Your task to perform on an android device: change notification settings in the gmail app Image 0: 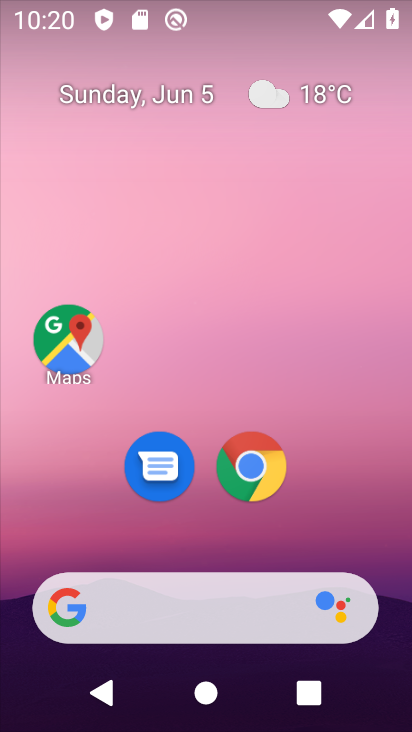
Step 0: drag from (351, 543) to (285, 164)
Your task to perform on an android device: change notification settings in the gmail app Image 1: 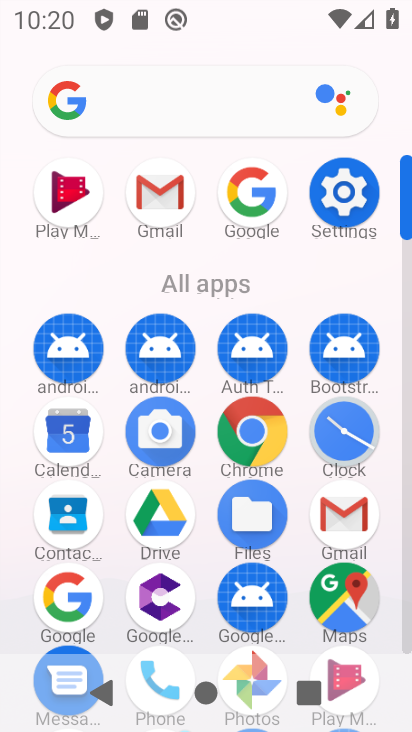
Step 1: drag from (308, 305) to (280, 111)
Your task to perform on an android device: change notification settings in the gmail app Image 2: 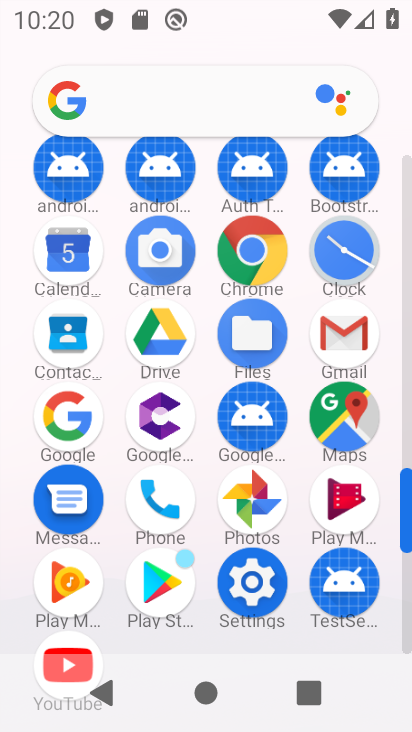
Step 2: click (344, 331)
Your task to perform on an android device: change notification settings in the gmail app Image 3: 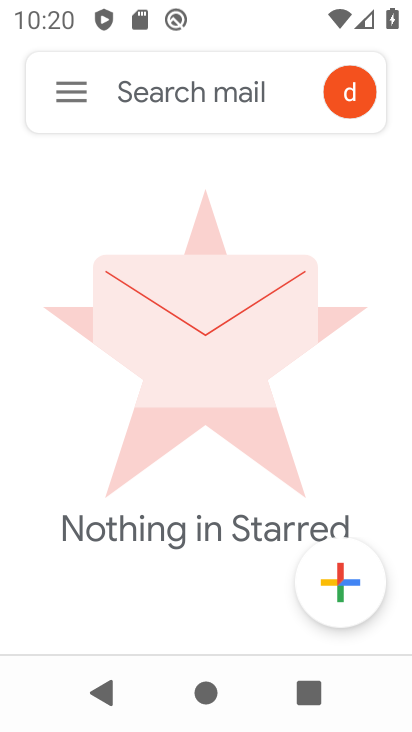
Step 3: click (63, 96)
Your task to perform on an android device: change notification settings in the gmail app Image 4: 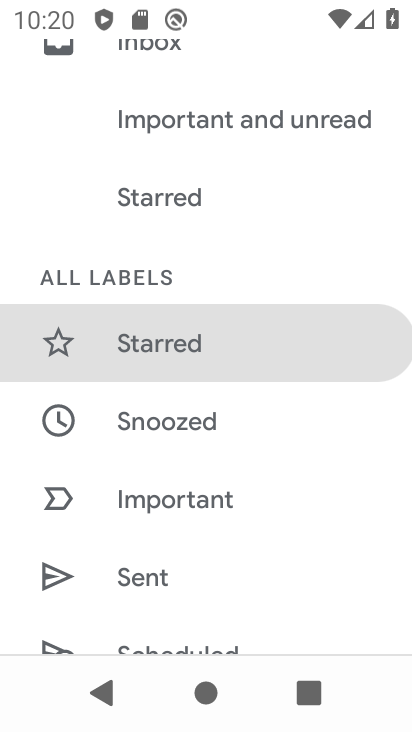
Step 4: drag from (197, 457) to (196, 332)
Your task to perform on an android device: change notification settings in the gmail app Image 5: 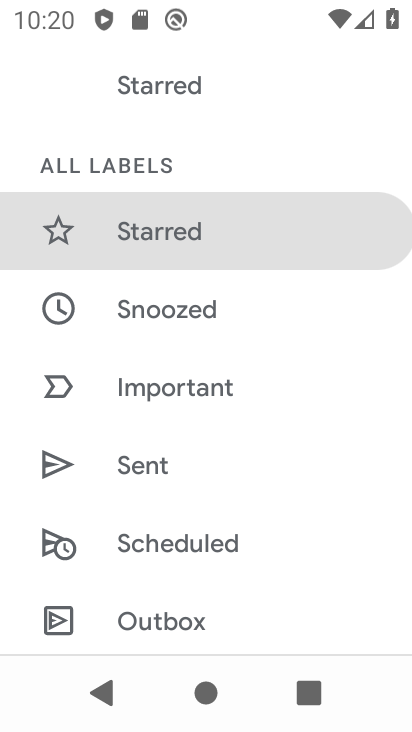
Step 5: drag from (203, 421) to (243, 331)
Your task to perform on an android device: change notification settings in the gmail app Image 6: 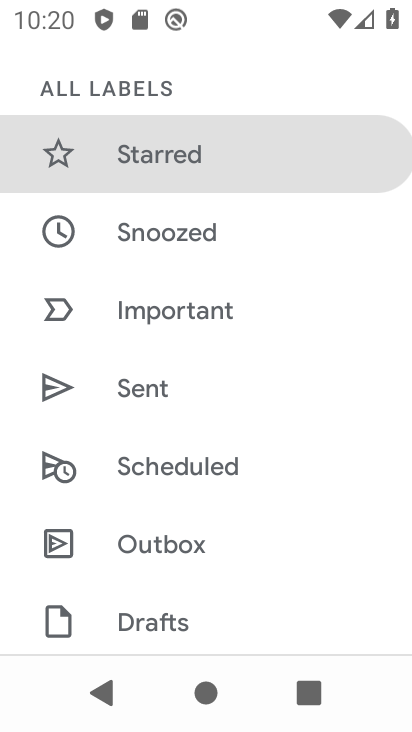
Step 6: drag from (177, 428) to (192, 335)
Your task to perform on an android device: change notification settings in the gmail app Image 7: 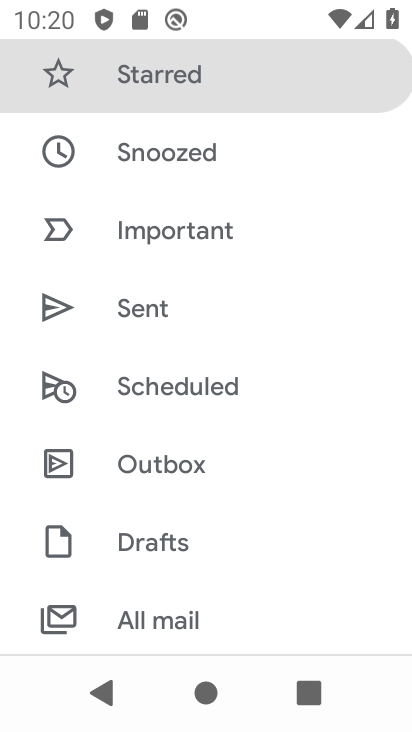
Step 7: drag from (173, 436) to (175, 329)
Your task to perform on an android device: change notification settings in the gmail app Image 8: 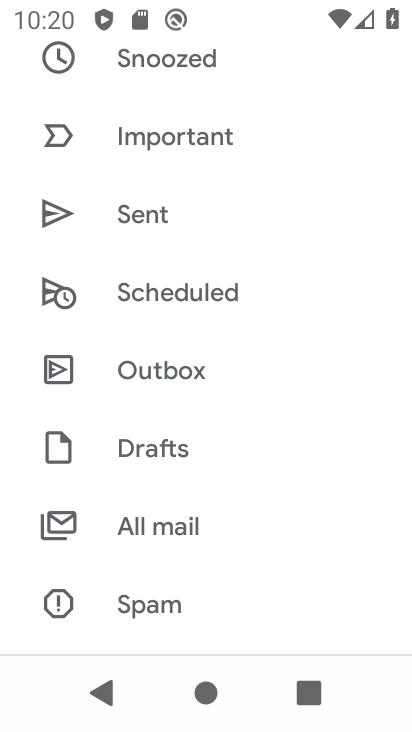
Step 8: drag from (153, 413) to (187, 312)
Your task to perform on an android device: change notification settings in the gmail app Image 9: 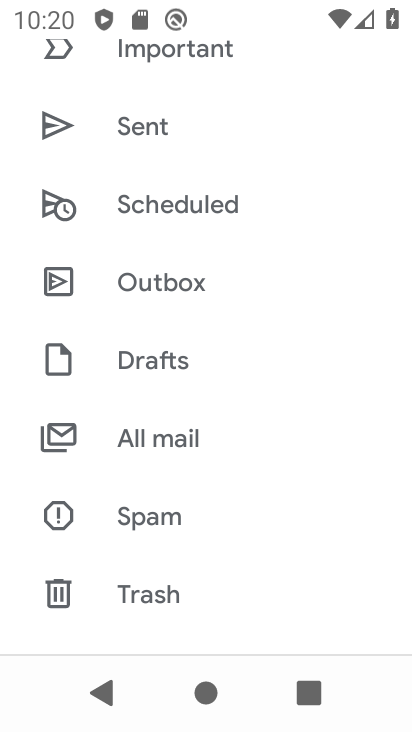
Step 9: drag from (157, 398) to (173, 297)
Your task to perform on an android device: change notification settings in the gmail app Image 10: 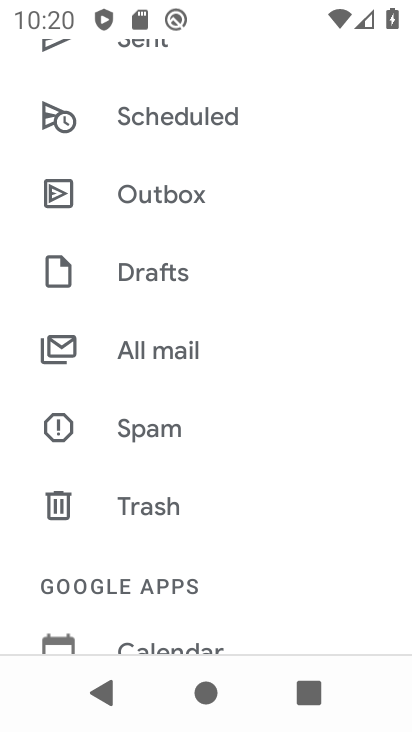
Step 10: drag from (163, 399) to (197, 299)
Your task to perform on an android device: change notification settings in the gmail app Image 11: 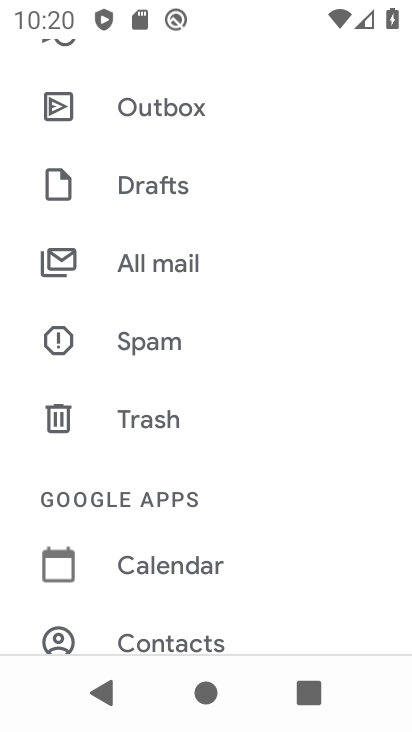
Step 11: drag from (155, 384) to (190, 297)
Your task to perform on an android device: change notification settings in the gmail app Image 12: 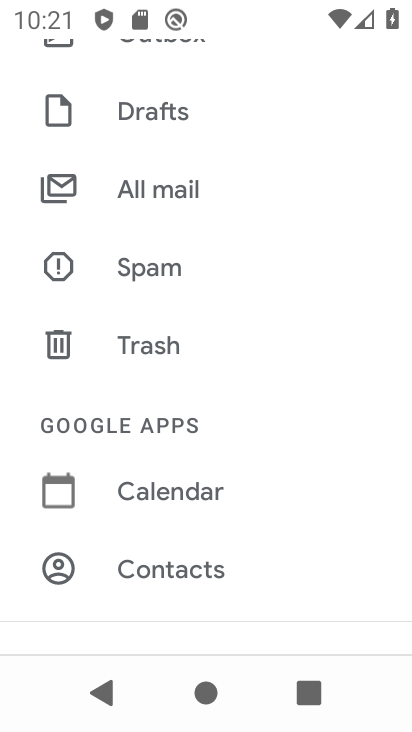
Step 12: drag from (161, 398) to (158, 286)
Your task to perform on an android device: change notification settings in the gmail app Image 13: 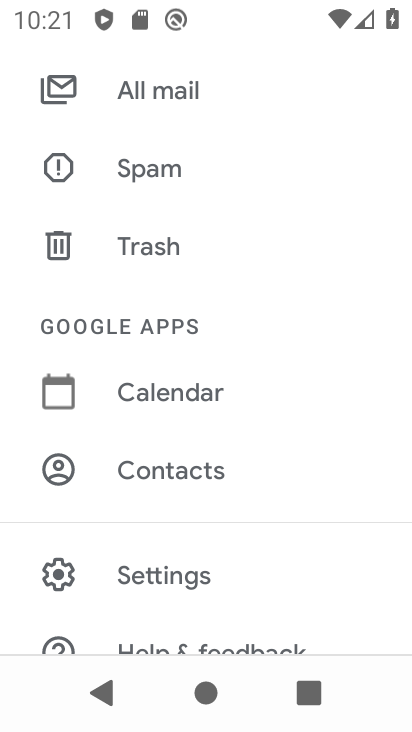
Step 13: click (180, 573)
Your task to perform on an android device: change notification settings in the gmail app Image 14: 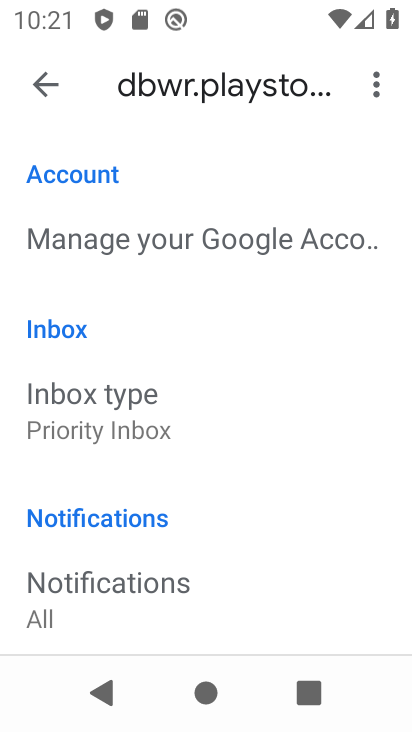
Step 14: drag from (87, 456) to (176, 334)
Your task to perform on an android device: change notification settings in the gmail app Image 15: 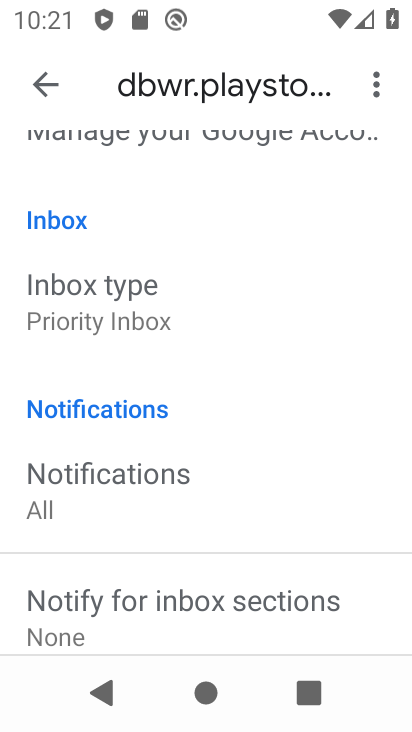
Step 15: drag from (133, 527) to (212, 387)
Your task to perform on an android device: change notification settings in the gmail app Image 16: 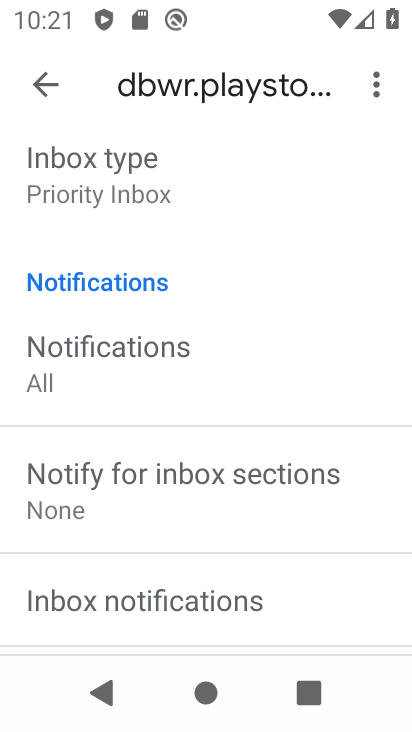
Step 16: drag from (170, 528) to (249, 382)
Your task to perform on an android device: change notification settings in the gmail app Image 17: 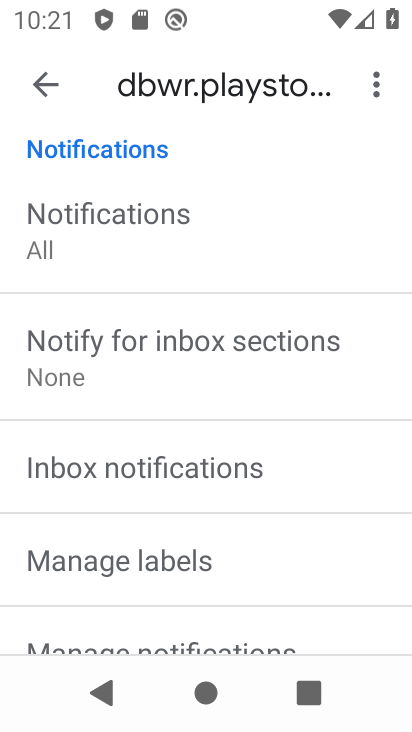
Step 17: drag from (233, 586) to (315, 445)
Your task to perform on an android device: change notification settings in the gmail app Image 18: 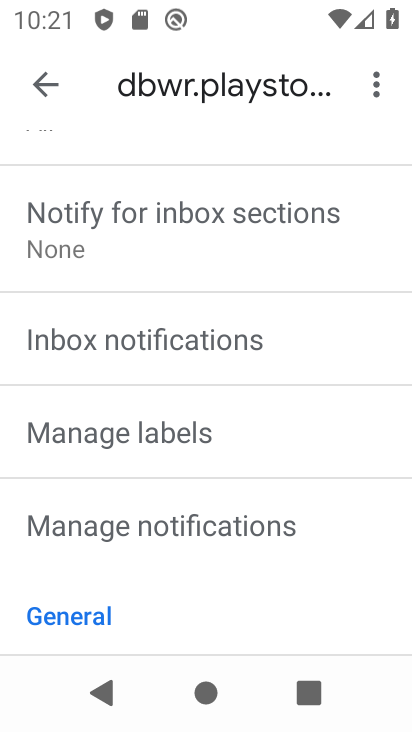
Step 18: click (264, 530)
Your task to perform on an android device: change notification settings in the gmail app Image 19: 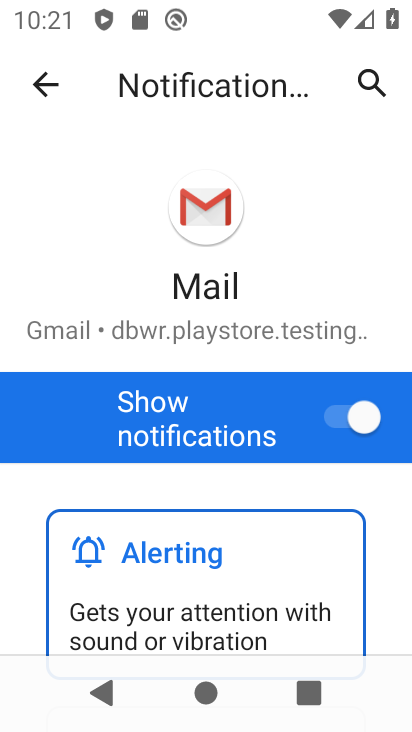
Step 19: click (340, 423)
Your task to perform on an android device: change notification settings in the gmail app Image 20: 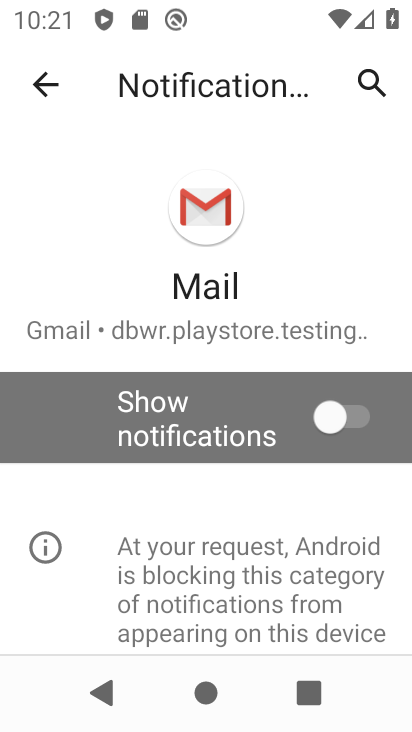
Step 20: task complete